Your task to perform on an android device: Open battery settings Image 0: 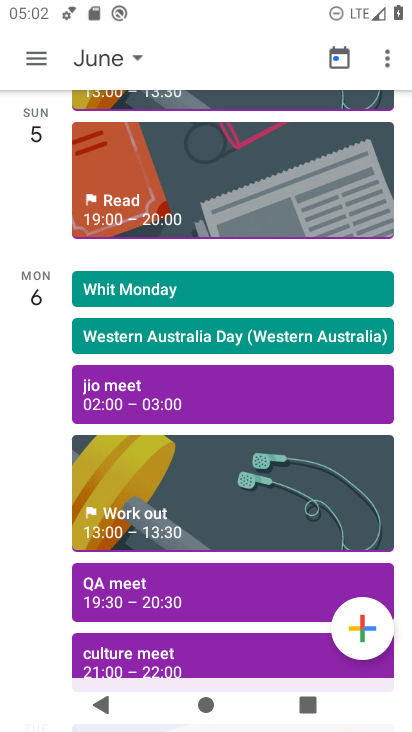
Step 0: press home button
Your task to perform on an android device: Open battery settings Image 1: 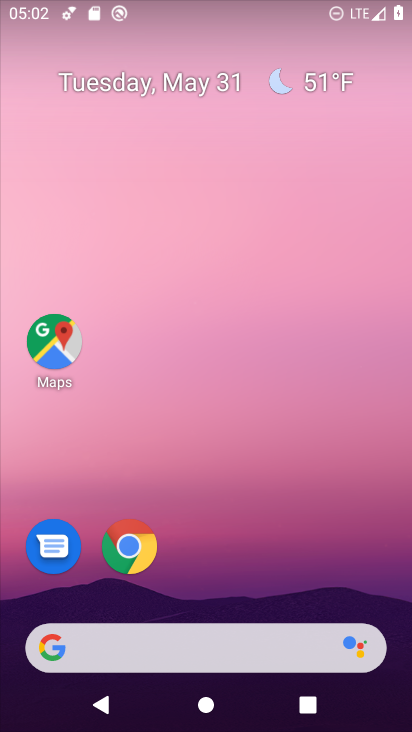
Step 1: drag from (207, 577) to (184, 222)
Your task to perform on an android device: Open battery settings Image 2: 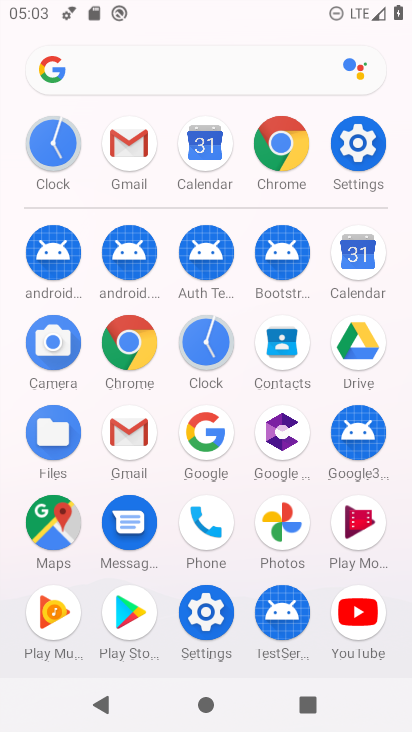
Step 2: click (363, 153)
Your task to perform on an android device: Open battery settings Image 3: 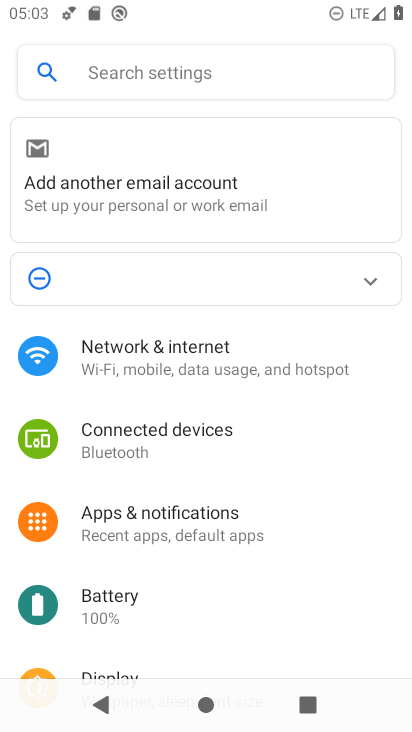
Step 3: drag from (149, 613) to (170, 456)
Your task to perform on an android device: Open battery settings Image 4: 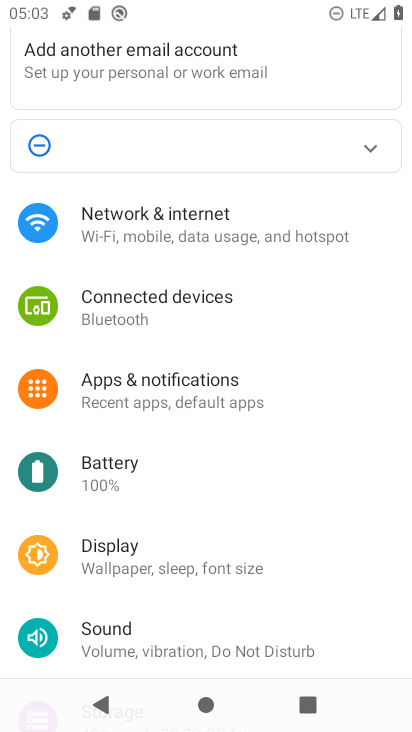
Step 4: click (99, 466)
Your task to perform on an android device: Open battery settings Image 5: 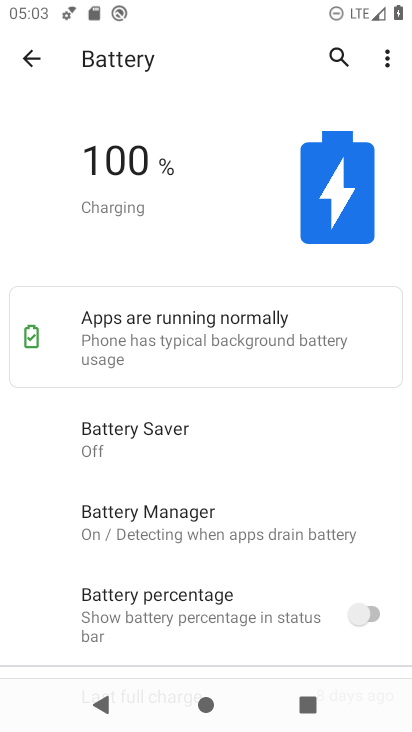
Step 5: task complete